Your task to perform on an android device: toggle javascript in the chrome app Image 0: 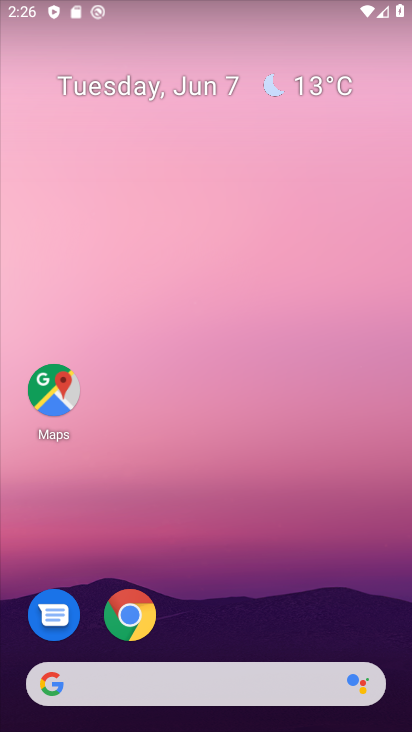
Step 0: click (136, 625)
Your task to perform on an android device: toggle javascript in the chrome app Image 1: 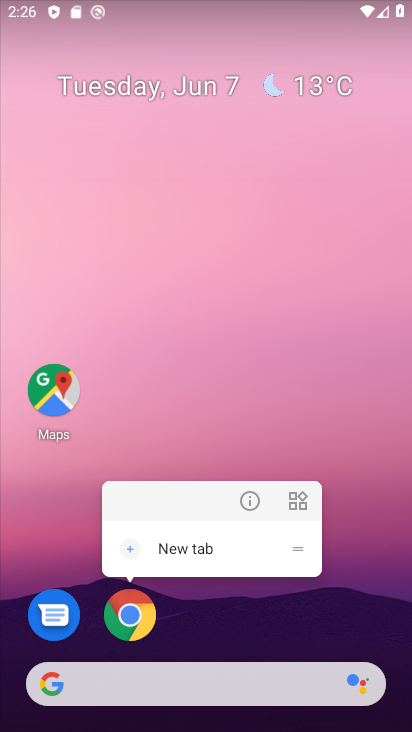
Step 1: click (136, 625)
Your task to perform on an android device: toggle javascript in the chrome app Image 2: 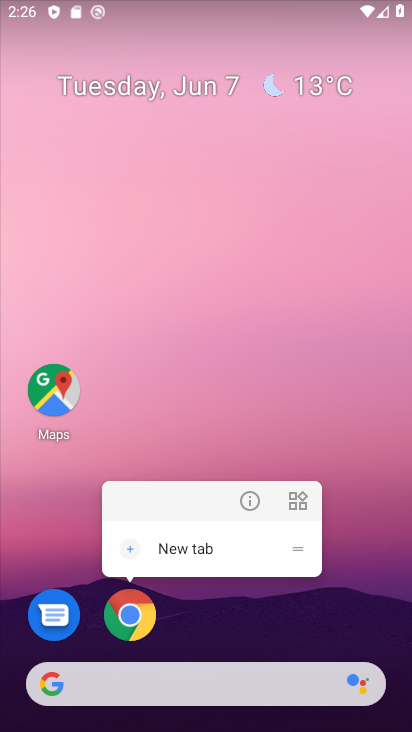
Step 2: click (137, 624)
Your task to perform on an android device: toggle javascript in the chrome app Image 3: 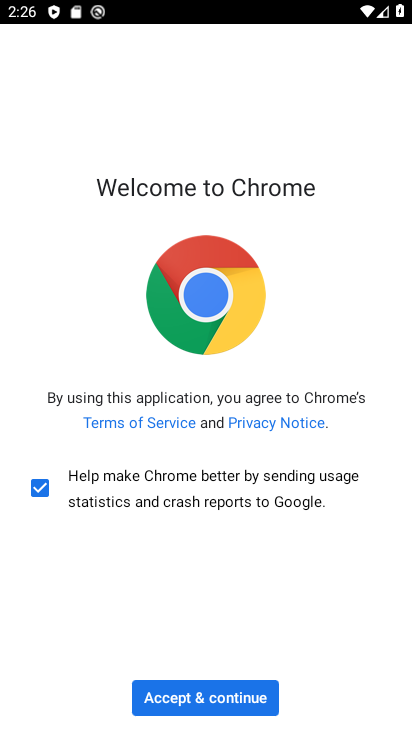
Step 3: click (233, 711)
Your task to perform on an android device: toggle javascript in the chrome app Image 4: 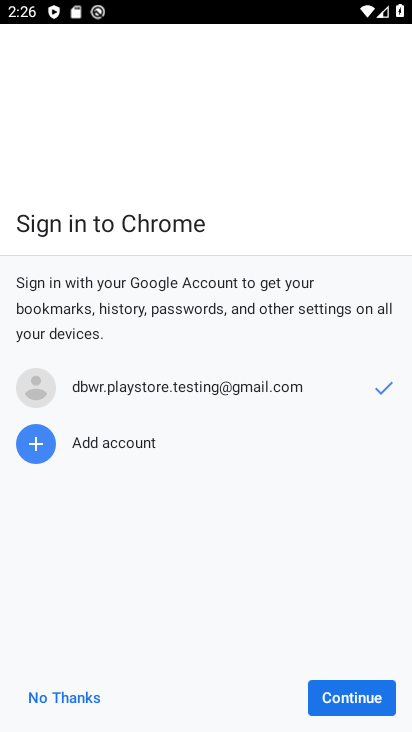
Step 4: click (353, 707)
Your task to perform on an android device: toggle javascript in the chrome app Image 5: 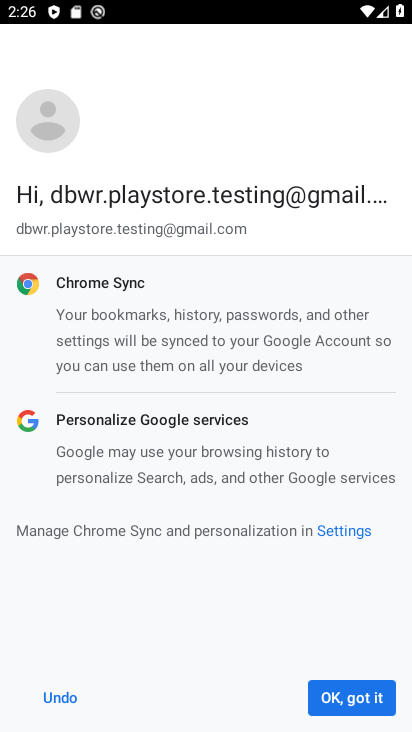
Step 5: click (353, 707)
Your task to perform on an android device: toggle javascript in the chrome app Image 6: 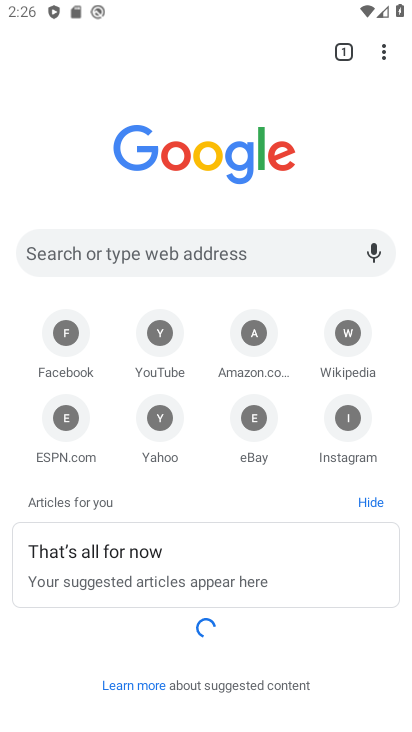
Step 6: drag from (386, 56) to (233, 425)
Your task to perform on an android device: toggle javascript in the chrome app Image 7: 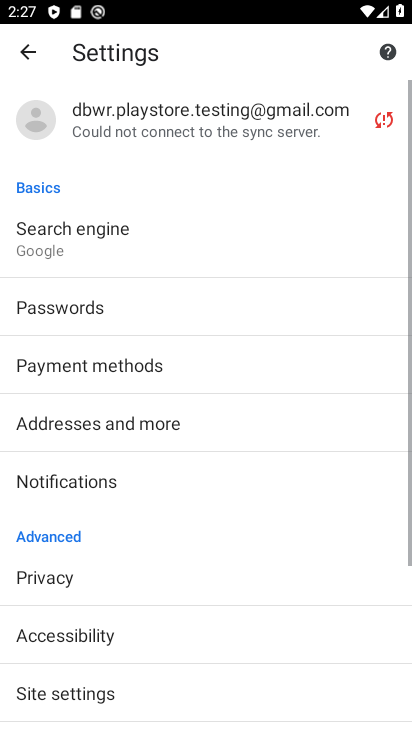
Step 7: drag from (117, 631) to (241, 260)
Your task to perform on an android device: toggle javascript in the chrome app Image 8: 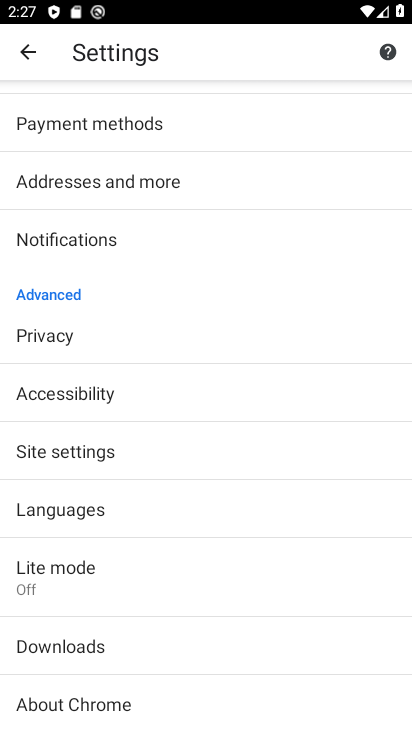
Step 8: click (143, 452)
Your task to perform on an android device: toggle javascript in the chrome app Image 9: 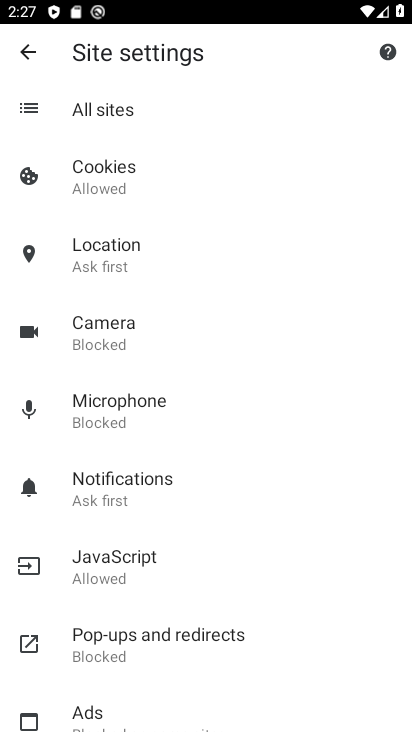
Step 9: drag from (170, 633) to (253, 384)
Your task to perform on an android device: toggle javascript in the chrome app Image 10: 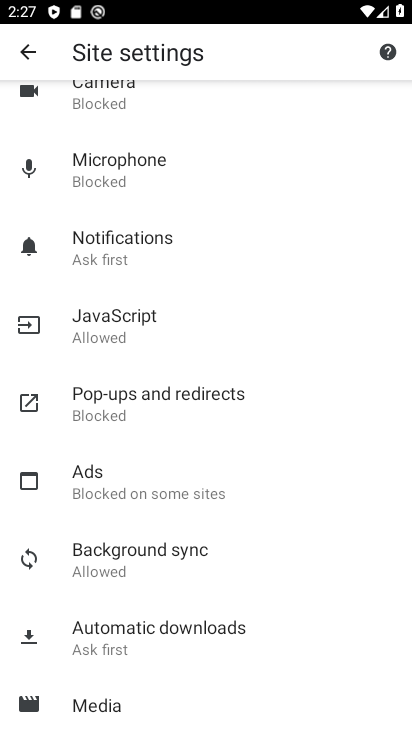
Step 10: click (172, 326)
Your task to perform on an android device: toggle javascript in the chrome app Image 11: 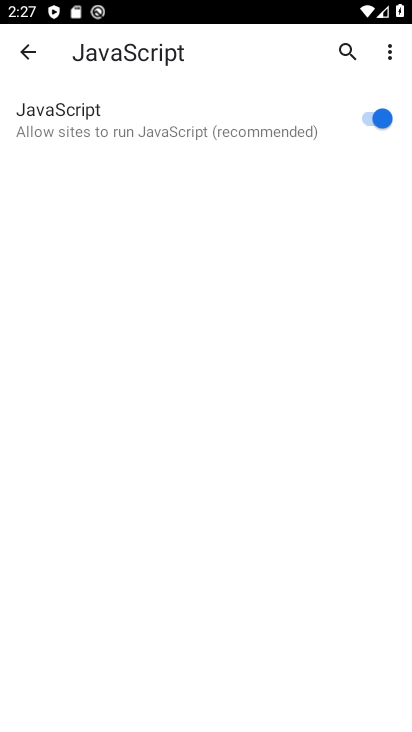
Step 11: click (366, 112)
Your task to perform on an android device: toggle javascript in the chrome app Image 12: 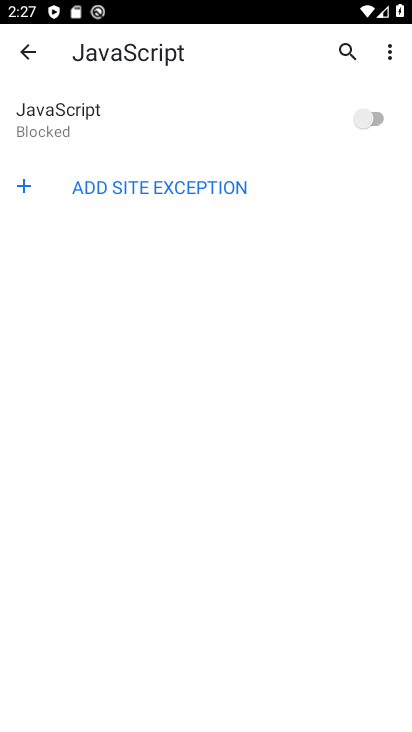
Step 12: task complete